Your task to perform on an android device: Open Chrome and go to settings Image 0: 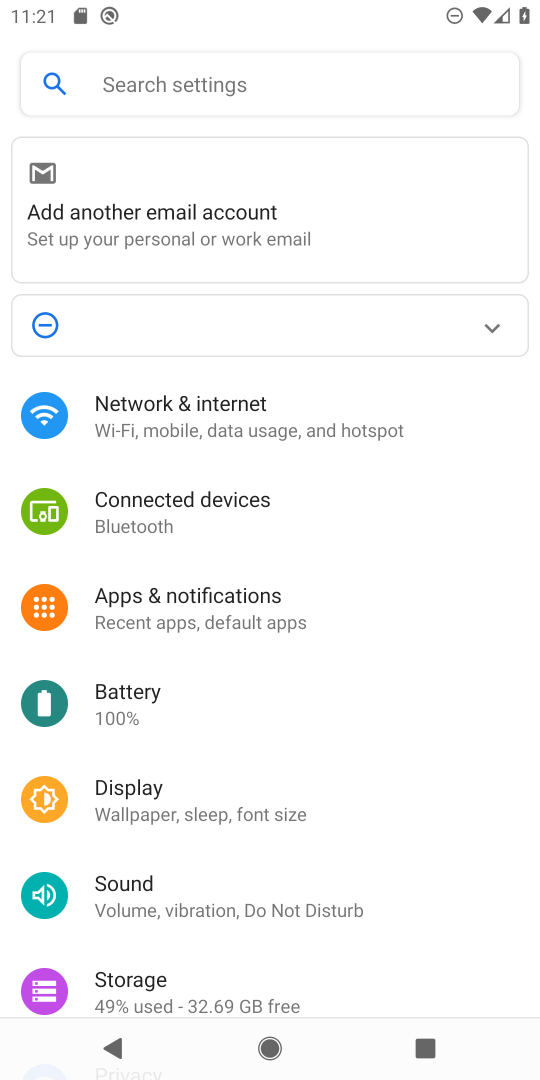
Step 0: press home button
Your task to perform on an android device: Open Chrome and go to settings Image 1: 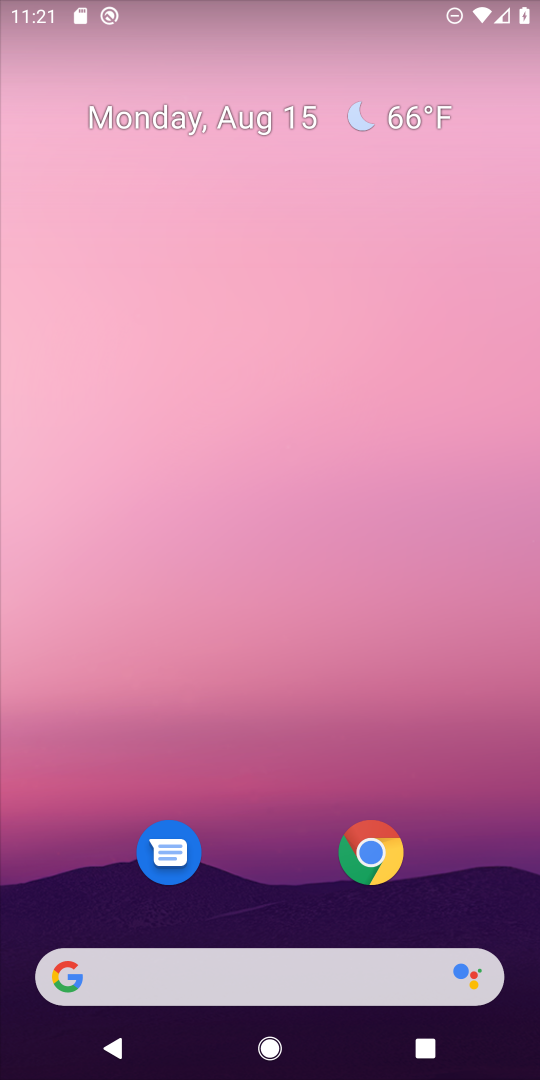
Step 1: click (369, 859)
Your task to perform on an android device: Open Chrome and go to settings Image 2: 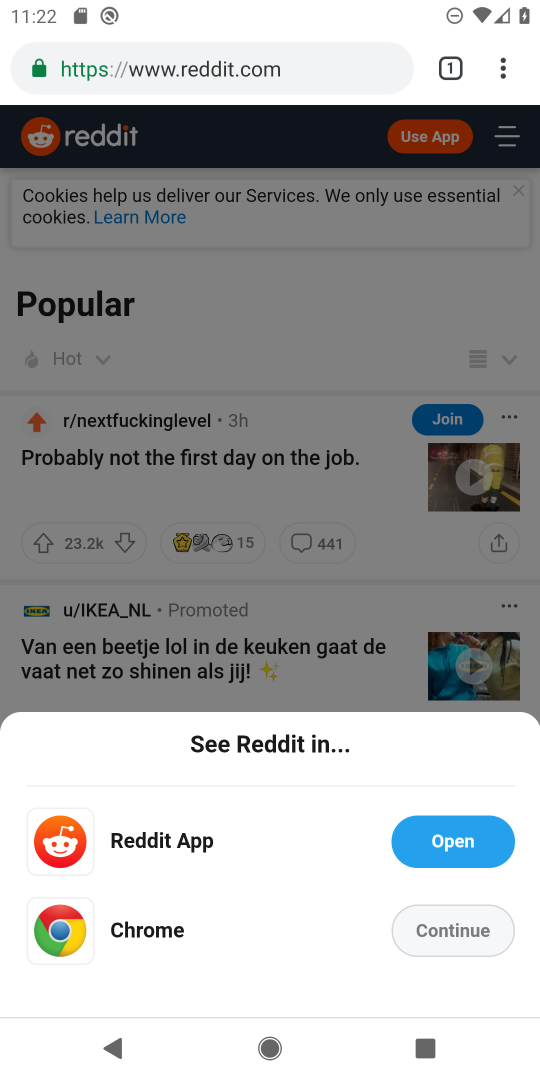
Step 2: task complete